Your task to perform on an android device: Go to ESPN.com Image 0: 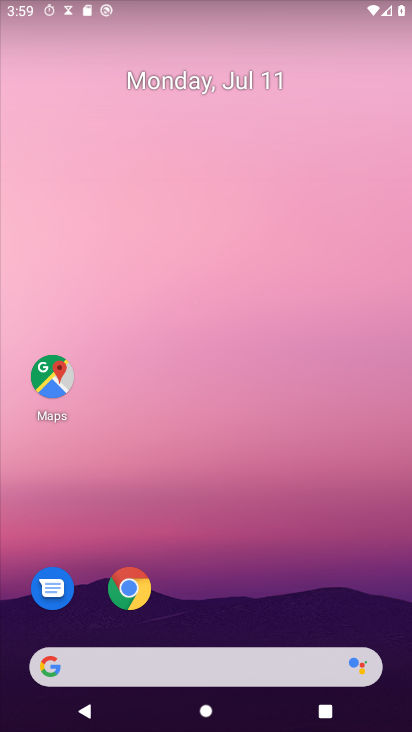
Step 0: click (133, 581)
Your task to perform on an android device: Go to ESPN.com Image 1: 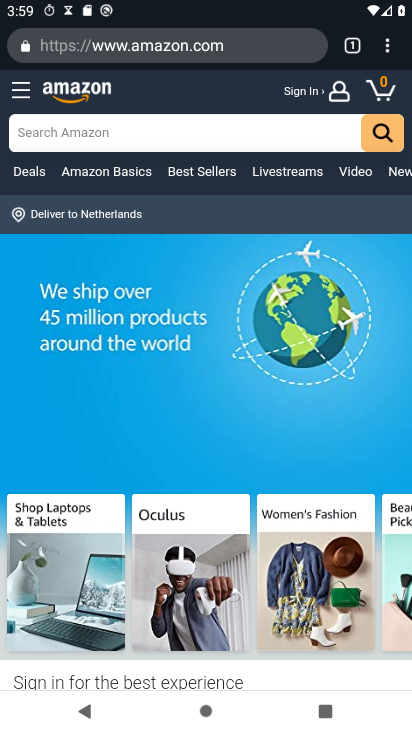
Step 1: click (202, 47)
Your task to perform on an android device: Go to ESPN.com Image 2: 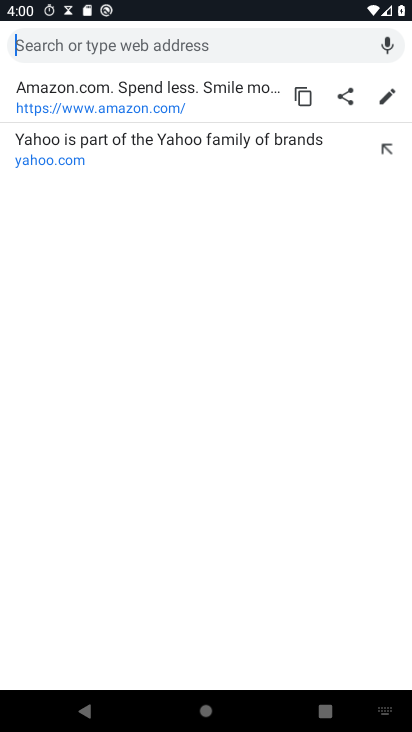
Step 2: type "ESPN.com"
Your task to perform on an android device: Go to ESPN.com Image 3: 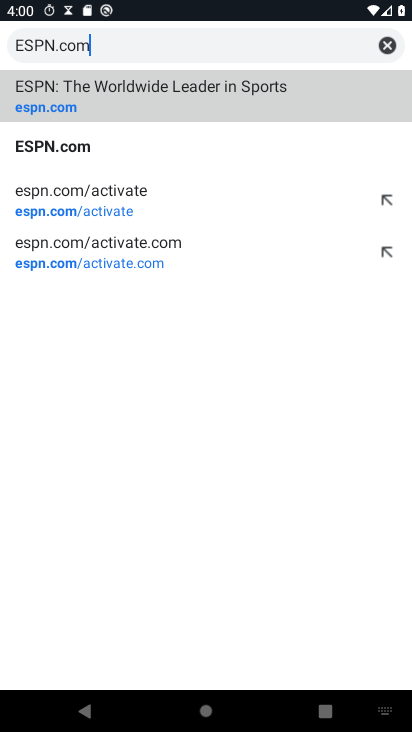
Step 3: click (183, 85)
Your task to perform on an android device: Go to ESPN.com Image 4: 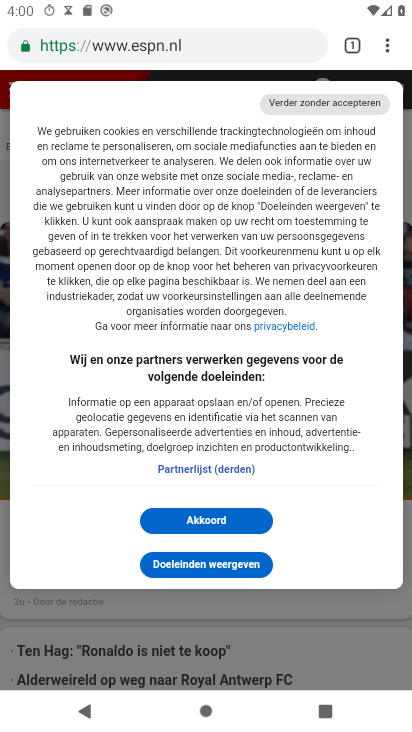
Step 4: task complete